Your task to perform on an android device: delete a single message in the gmail app Image 0: 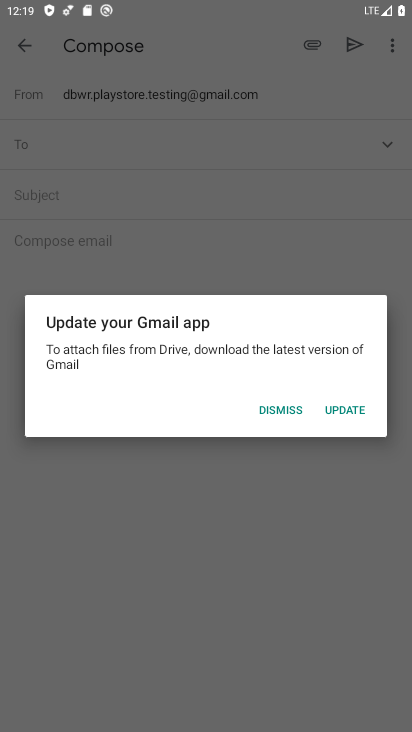
Step 0: press home button
Your task to perform on an android device: delete a single message in the gmail app Image 1: 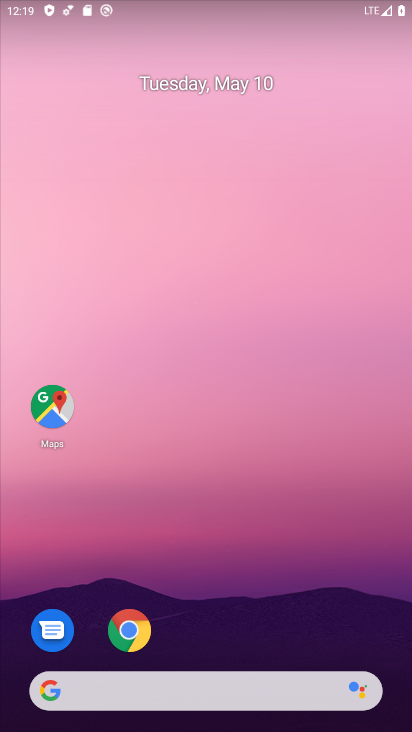
Step 1: drag from (210, 726) to (198, 249)
Your task to perform on an android device: delete a single message in the gmail app Image 2: 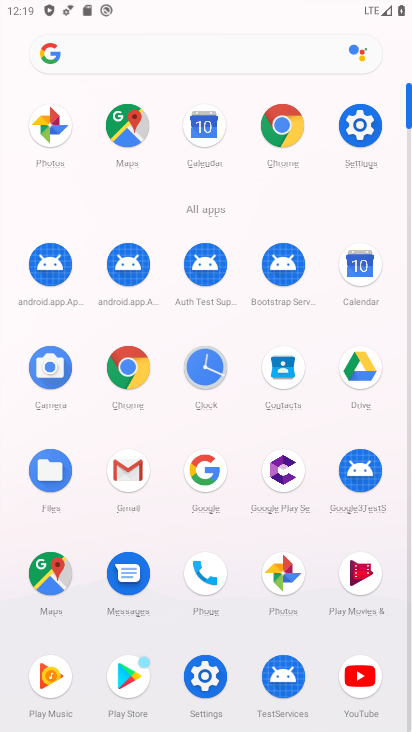
Step 2: click (124, 467)
Your task to perform on an android device: delete a single message in the gmail app Image 3: 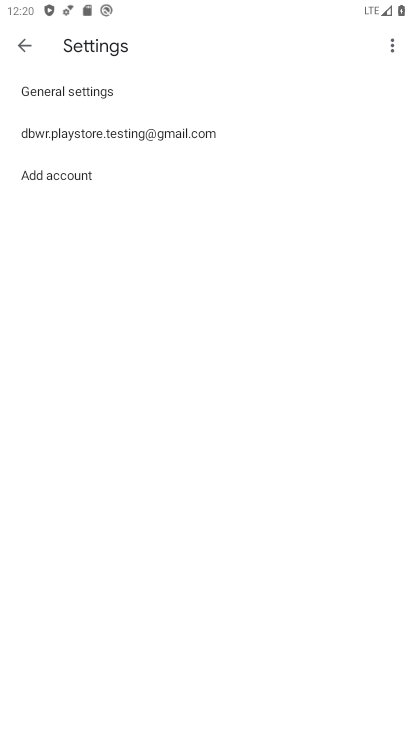
Step 3: click (27, 43)
Your task to perform on an android device: delete a single message in the gmail app Image 4: 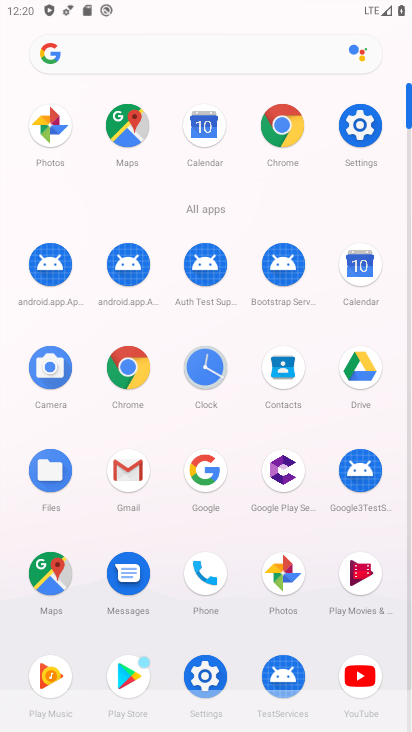
Step 4: click (129, 466)
Your task to perform on an android device: delete a single message in the gmail app Image 5: 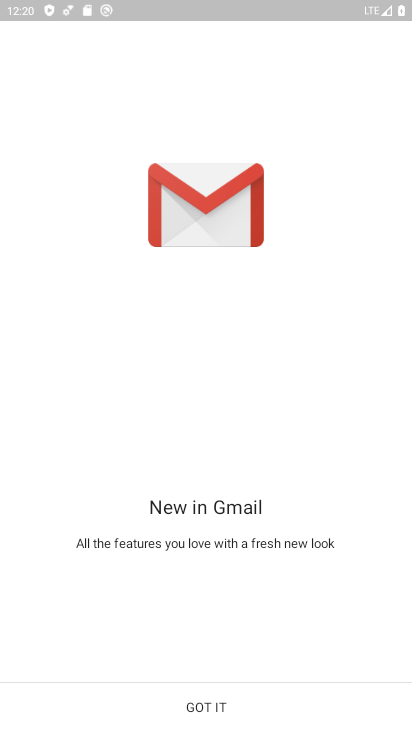
Step 5: click (215, 700)
Your task to perform on an android device: delete a single message in the gmail app Image 6: 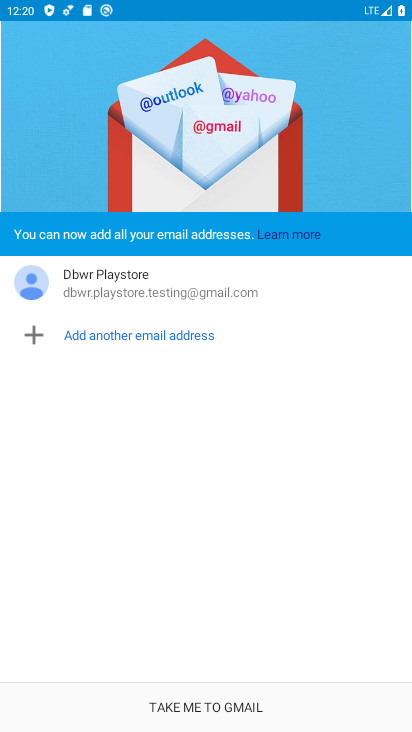
Step 6: click (215, 700)
Your task to perform on an android device: delete a single message in the gmail app Image 7: 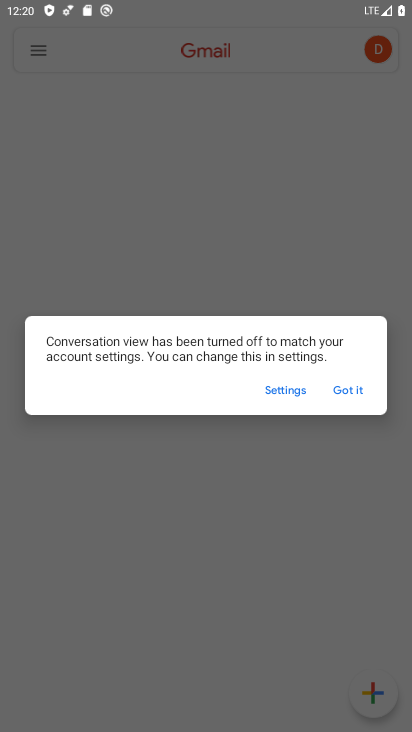
Step 7: click (348, 386)
Your task to perform on an android device: delete a single message in the gmail app Image 8: 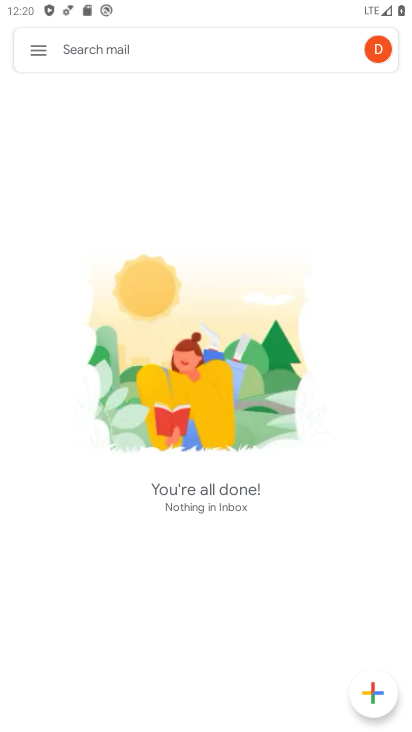
Step 8: task complete